Your task to perform on an android device: refresh tabs in the chrome app Image 0: 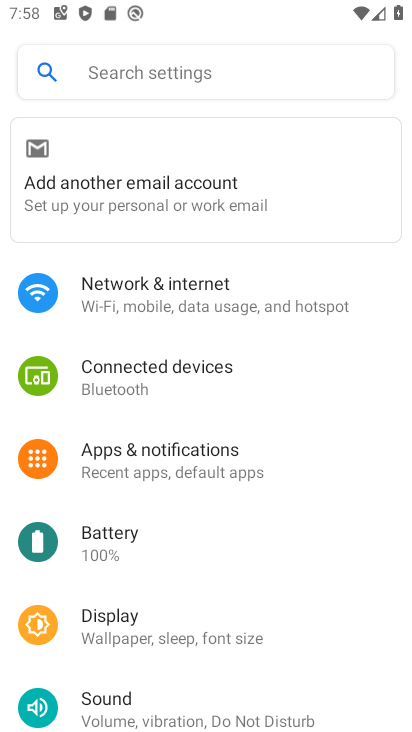
Step 0: press home button
Your task to perform on an android device: refresh tabs in the chrome app Image 1: 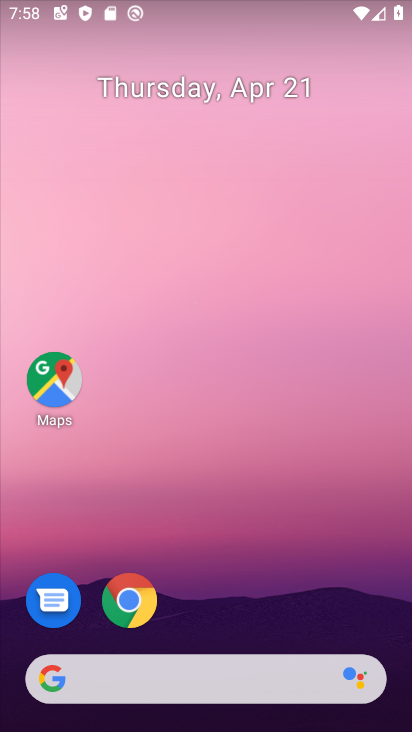
Step 1: click (127, 592)
Your task to perform on an android device: refresh tabs in the chrome app Image 2: 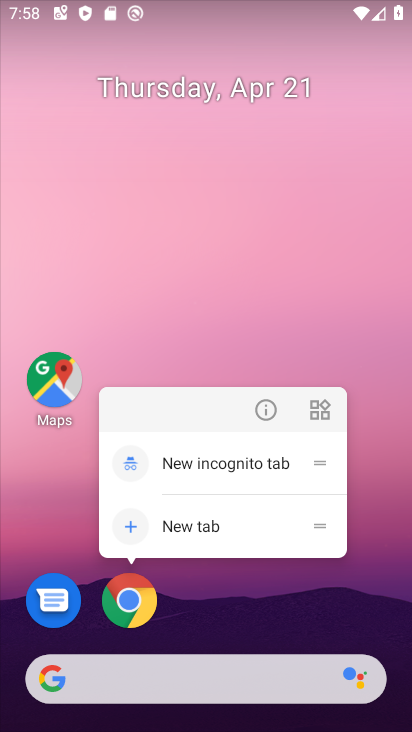
Step 2: click (256, 409)
Your task to perform on an android device: refresh tabs in the chrome app Image 3: 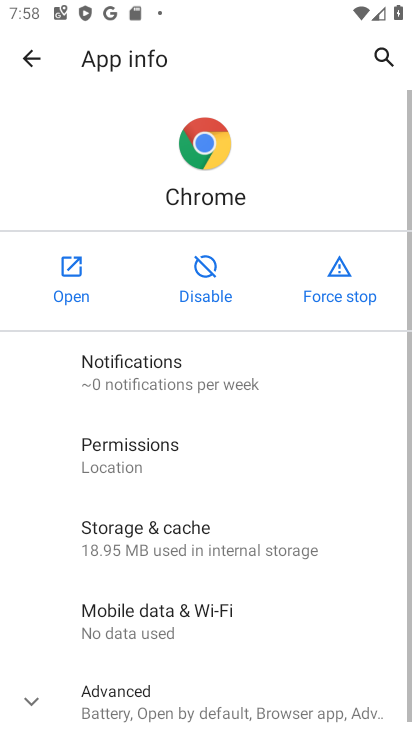
Step 3: click (72, 274)
Your task to perform on an android device: refresh tabs in the chrome app Image 4: 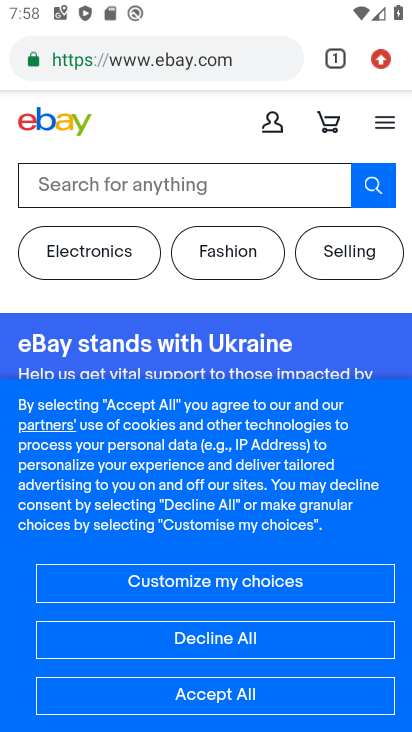
Step 4: click (339, 52)
Your task to perform on an android device: refresh tabs in the chrome app Image 5: 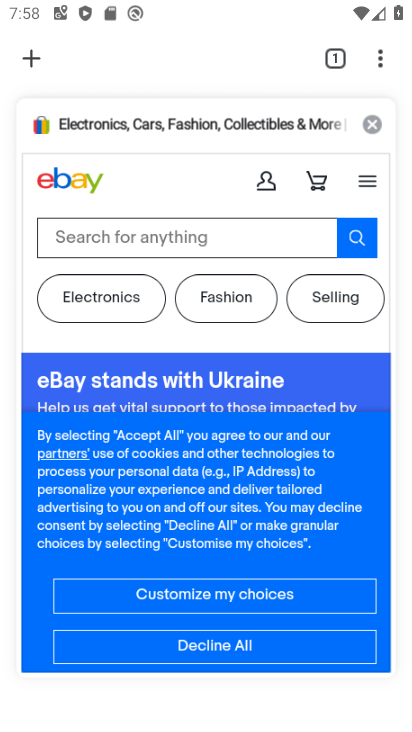
Step 5: click (374, 59)
Your task to perform on an android device: refresh tabs in the chrome app Image 6: 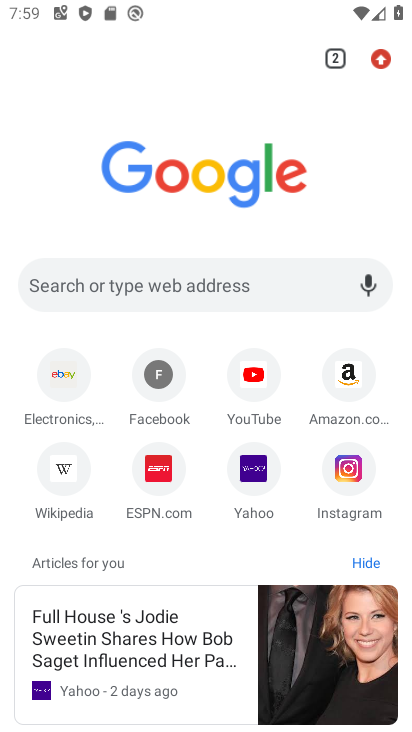
Step 6: click (378, 62)
Your task to perform on an android device: refresh tabs in the chrome app Image 7: 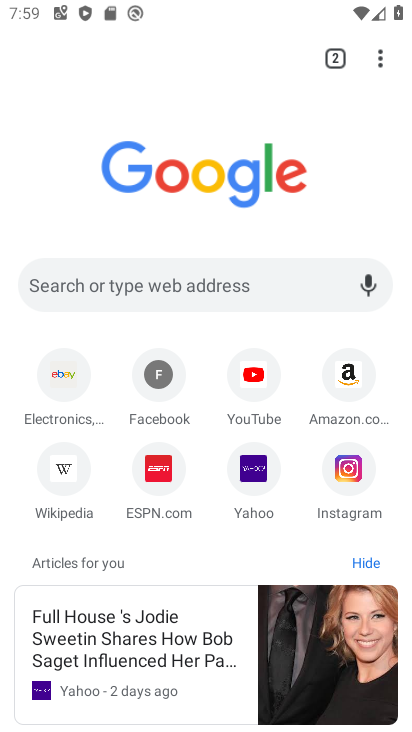
Step 7: click (378, 62)
Your task to perform on an android device: refresh tabs in the chrome app Image 8: 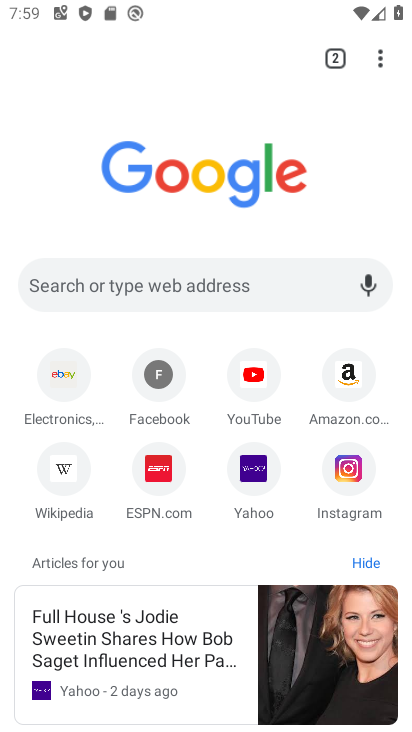
Step 8: click (377, 57)
Your task to perform on an android device: refresh tabs in the chrome app Image 9: 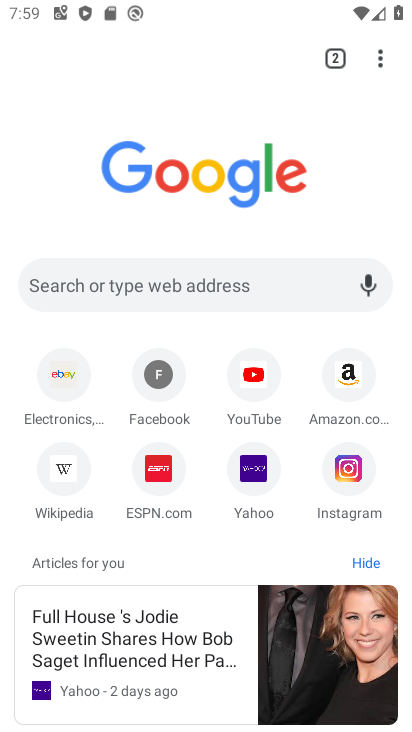
Step 9: click (377, 57)
Your task to perform on an android device: refresh tabs in the chrome app Image 10: 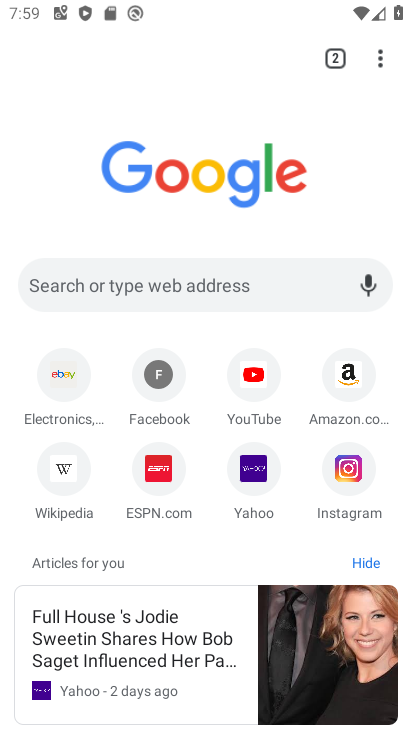
Step 10: drag from (409, 69) to (374, 45)
Your task to perform on an android device: refresh tabs in the chrome app Image 11: 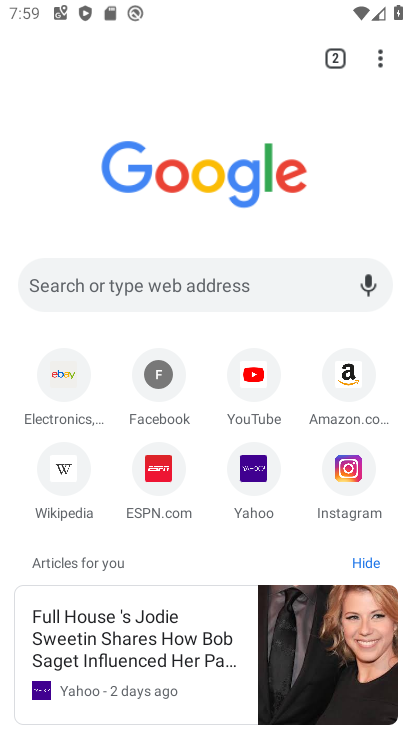
Step 11: click (372, 40)
Your task to perform on an android device: refresh tabs in the chrome app Image 12: 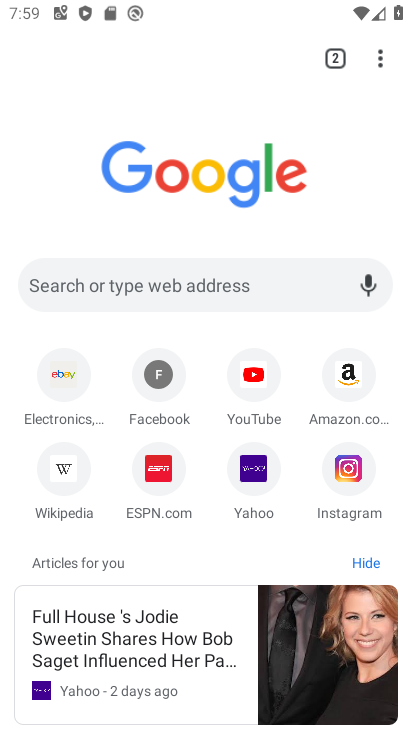
Step 12: click (378, 54)
Your task to perform on an android device: refresh tabs in the chrome app Image 13: 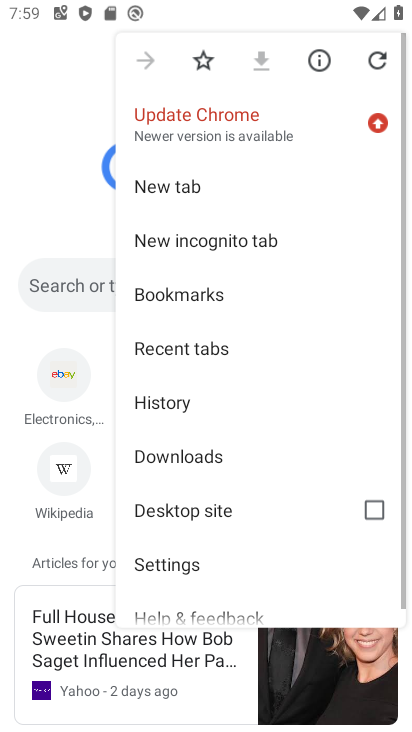
Step 13: click (371, 41)
Your task to perform on an android device: refresh tabs in the chrome app Image 14: 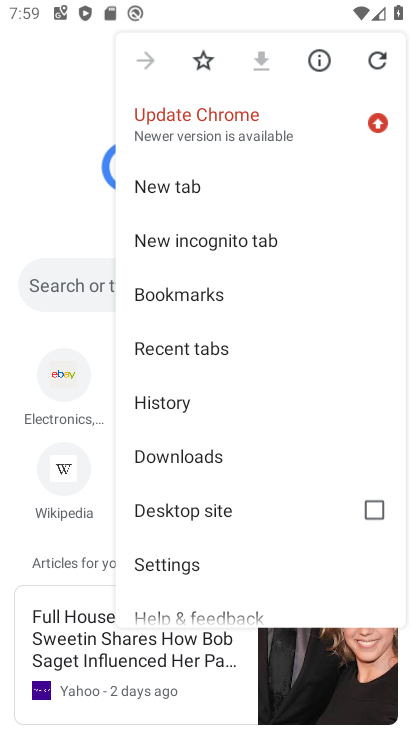
Step 14: click (378, 63)
Your task to perform on an android device: refresh tabs in the chrome app Image 15: 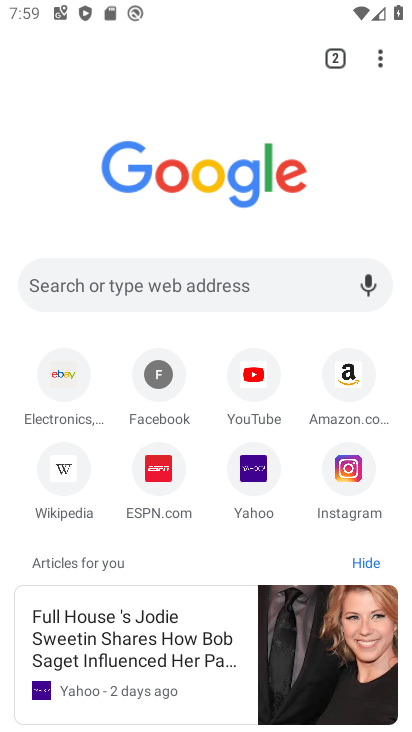
Step 15: task complete